Your task to perform on an android device: Go to CNN.com Image 0: 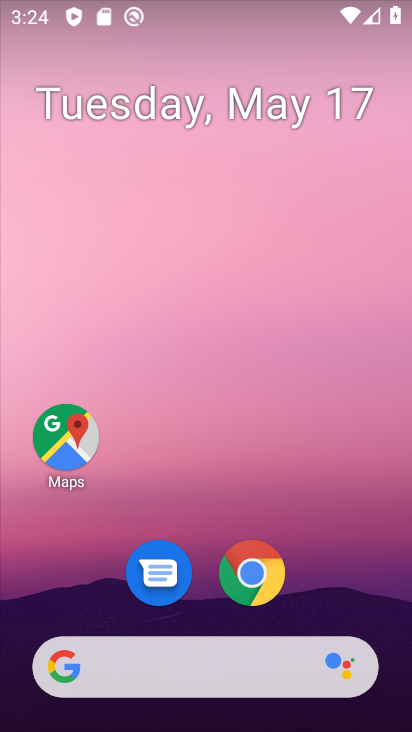
Step 0: click (244, 573)
Your task to perform on an android device: Go to CNN.com Image 1: 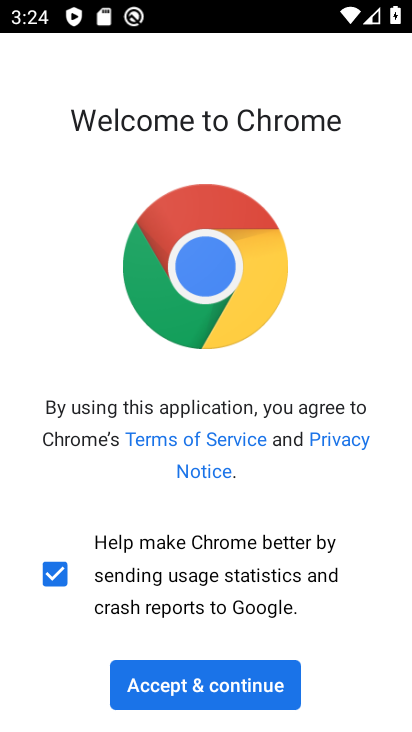
Step 1: click (240, 674)
Your task to perform on an android device: Go to CNN.com Image 2: 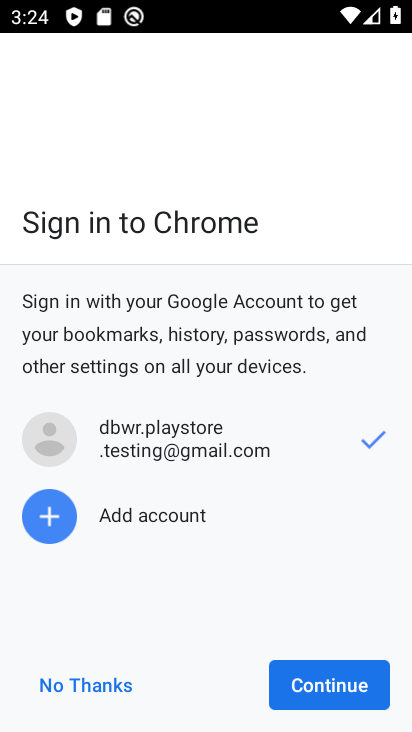
Step 2: click (332, 685)
Your task to perform on an android device: Go to CNN.com Image 3: 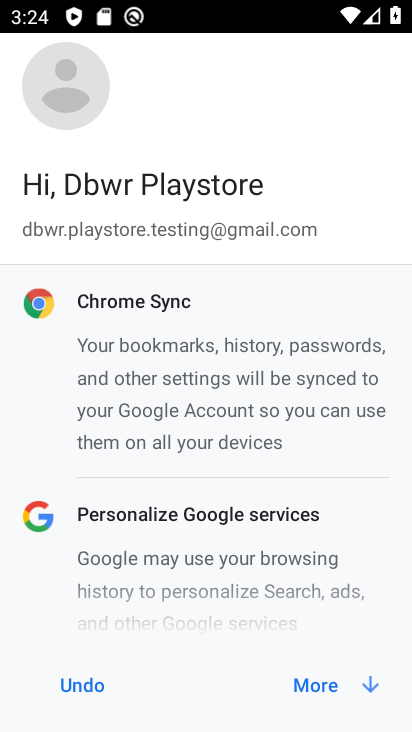
Step 3: click (323, 690)
Your task to perform on an android device: Go to CNN.com Image 4: 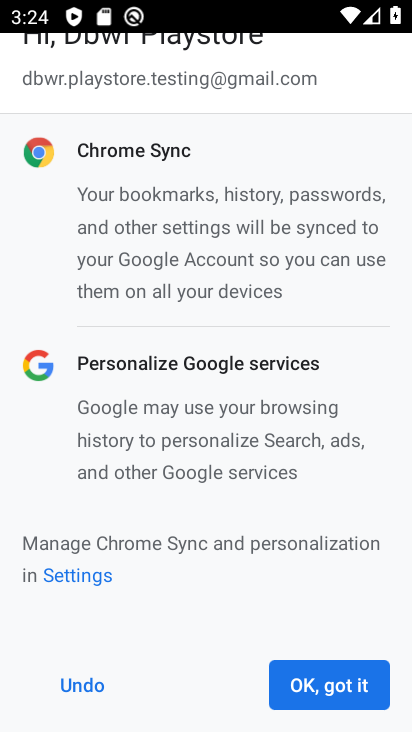
Step 4: click (332, 691)
Your task to perform on an android device: Go to CNN.com Image 5: 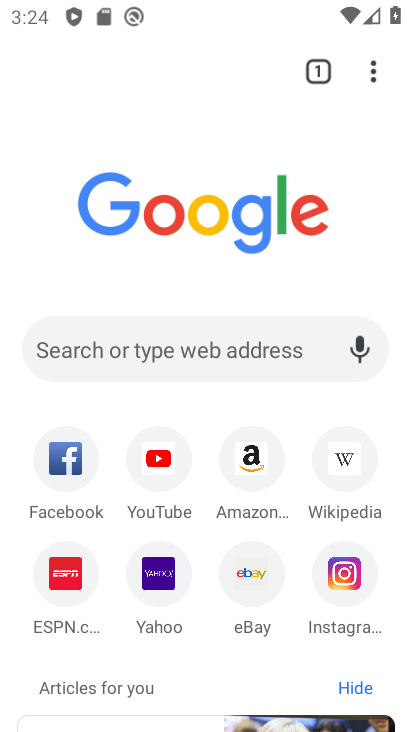
Step 5: click (256, 330)
Your task to perform on an android device: Go to CNN.com Image 6: 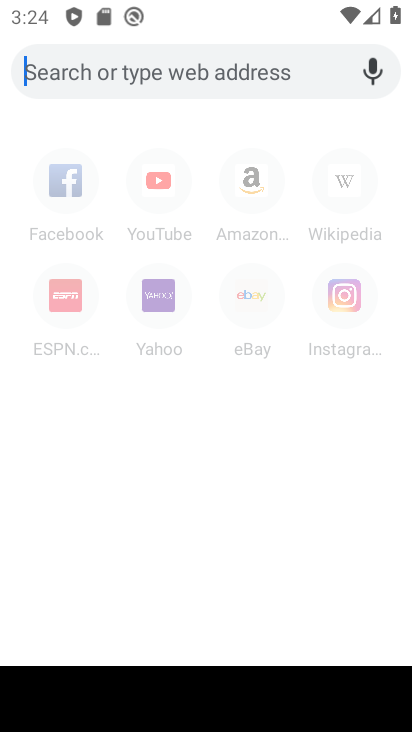
Step 6: type "cnn.com"
Your task to perform on an android device: Go to CNN.com Image 7: 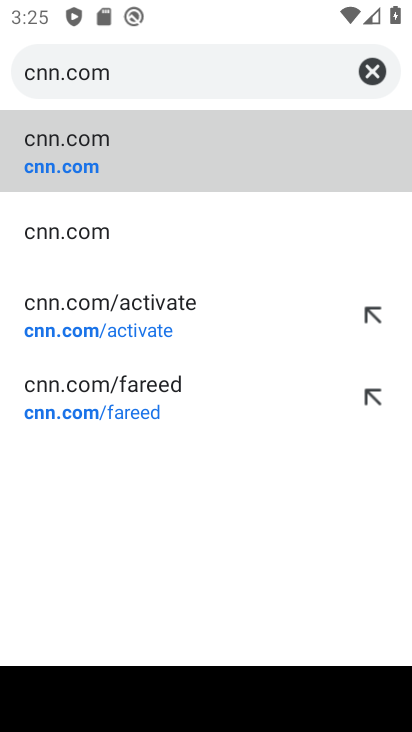
Step 7: click (91, 161)
Your task to perform on an android device: Go to CNN.com Image 8: 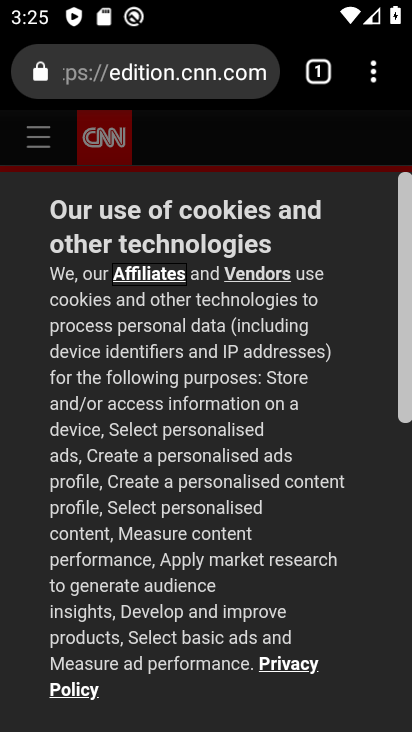
Step 8: task complete